Your task to perform on an android device: What's on my calendar tomorrow? Image 0: 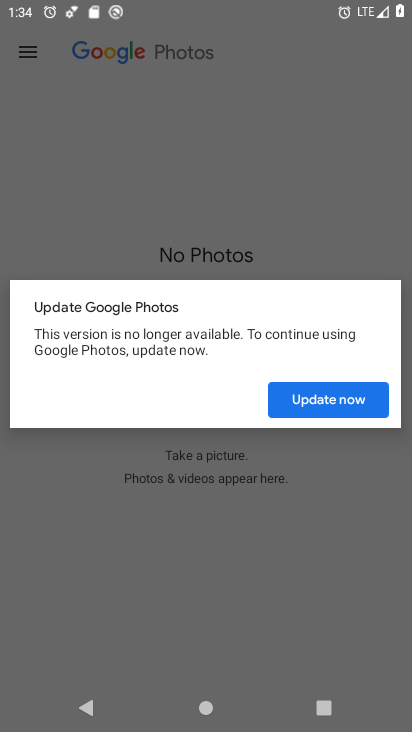
Step 0: press home button
Your task to perform on an android device: What's on my calendar tomorrow? Image 1: 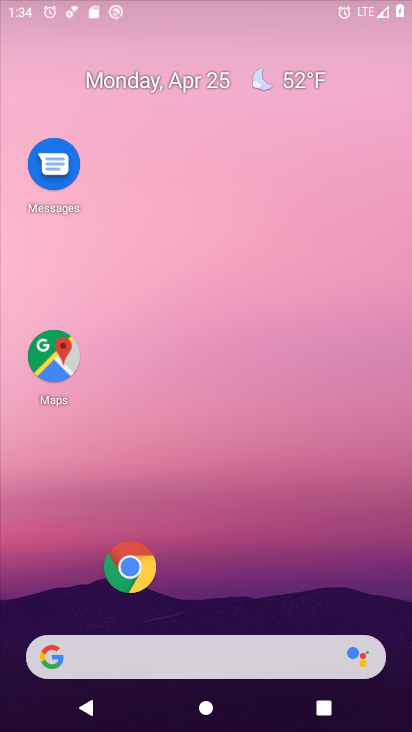
Step 1: drag from (275, 593) to (273, 148)
Your task to perform on an android device: What's on my calendar tomorrow? Image 2: 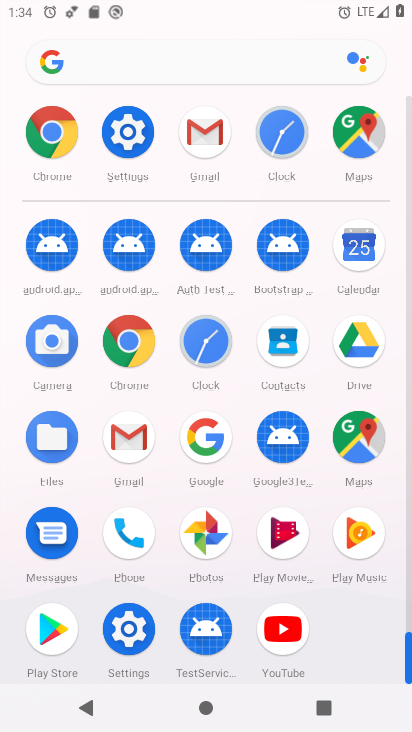
Step 2: click (372, 264)
Your task to perform on an android device: What's on my calendar tomorrow? Image 3: 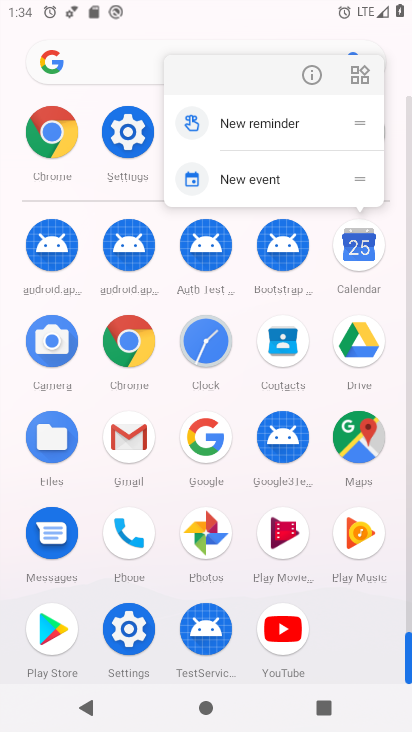
Step 3: click (350, 274)
Your task to perform on an android device: What's on my calendar tomorrow? Image 4: 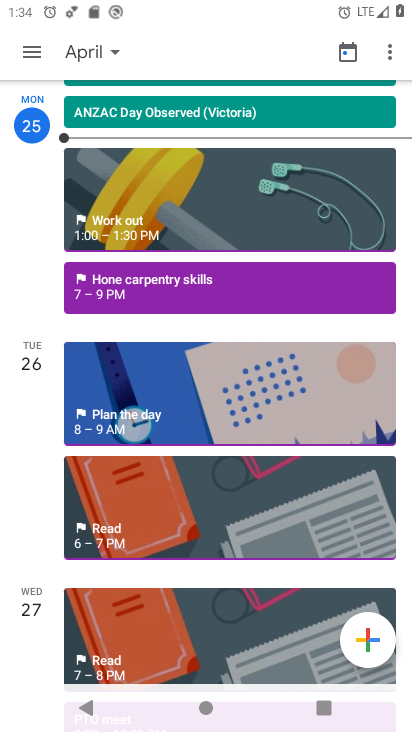
Step 4: task complete